Your task to perform on an android device: open app "Microsoft Outlook" (install if not already installed) Image 0: 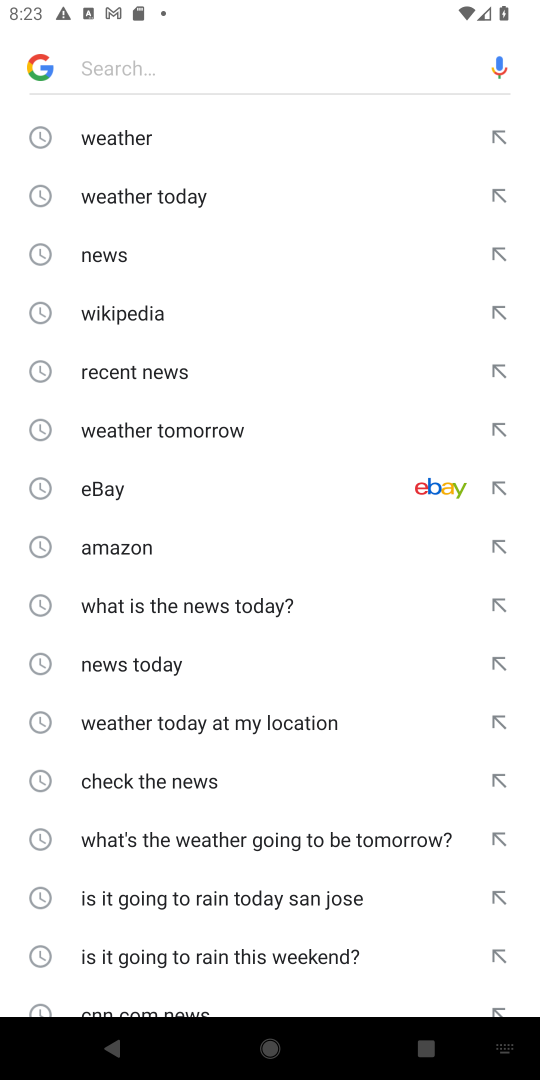
Step 0: press home button
Your task to perform on an android device: open app "Microsoft Outlook" (install if not already installed) Image 1: 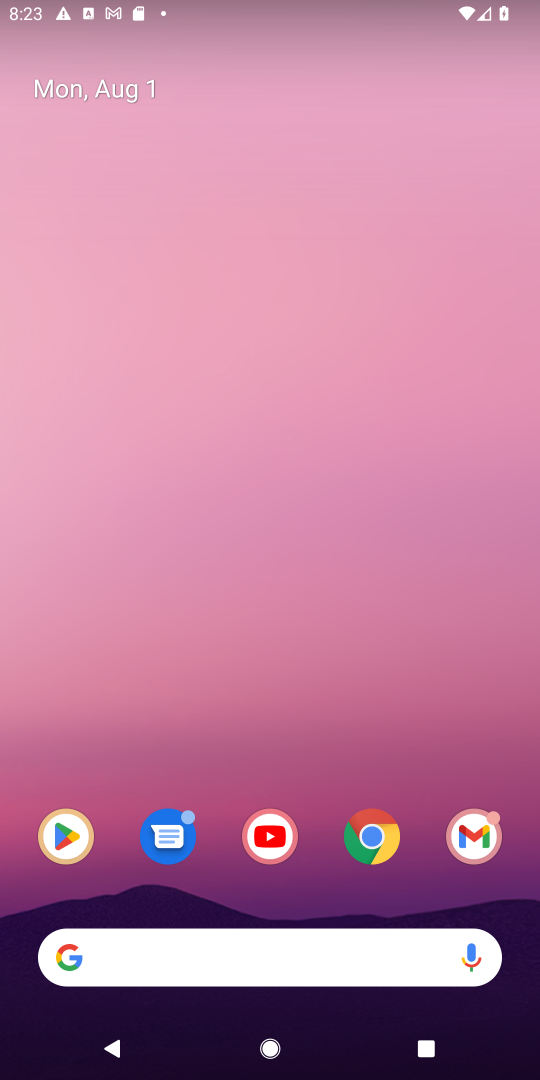
Step 1: click (61, 845)
Your task to perform on an android device: open app "Microsoft Outlook" (install if not already installed) Image 2: 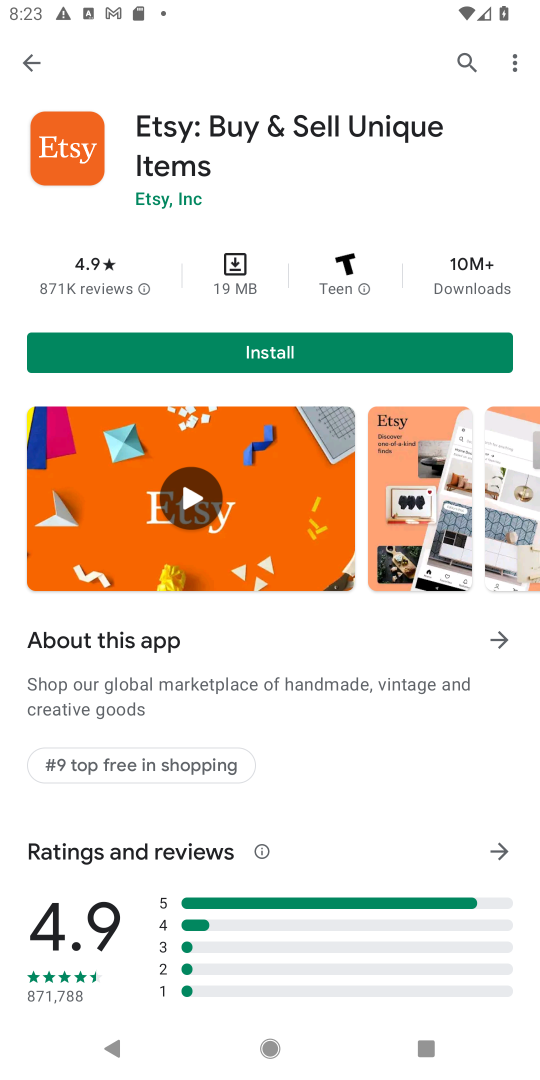
Step 2: click (461, 55)
Your task to perform on an android device: open app "Microsoft Outlook" (install if not already installed) Image 3: 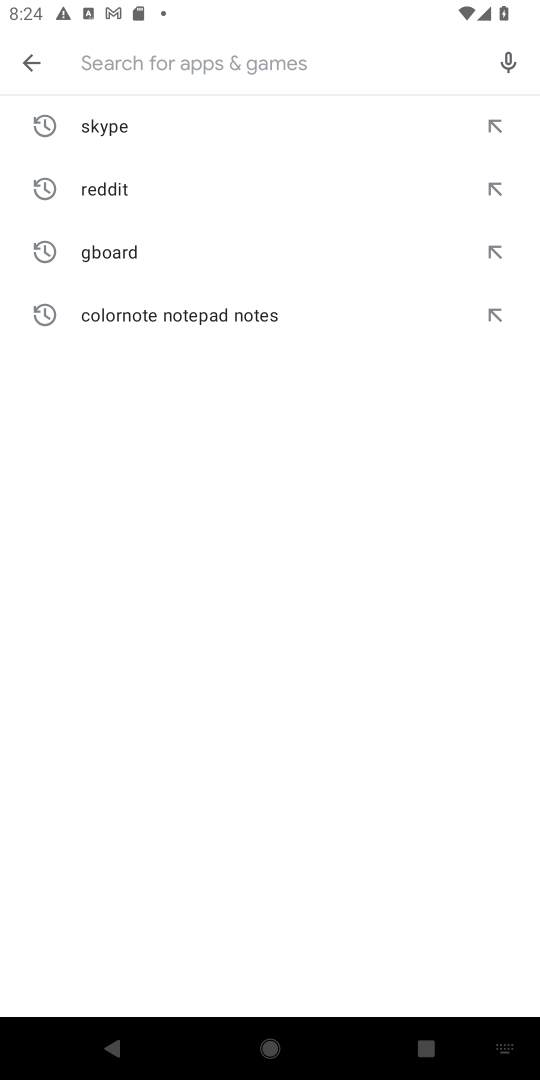
Step 3: type "Microsoft Outlook"
Your task to perform on an android device: open app "Microsoft Outlook" (install if not already installed) Image 4: 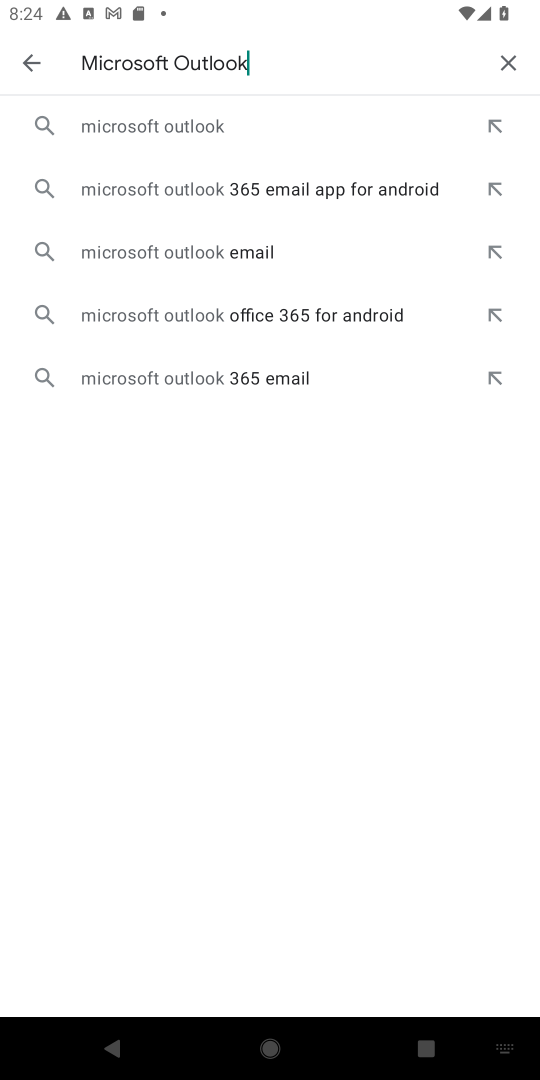
Step 4: click (187, 132)
Your task to perform on an android device: open app "Microsoft Outlook" (install if not already installed) Image 5: 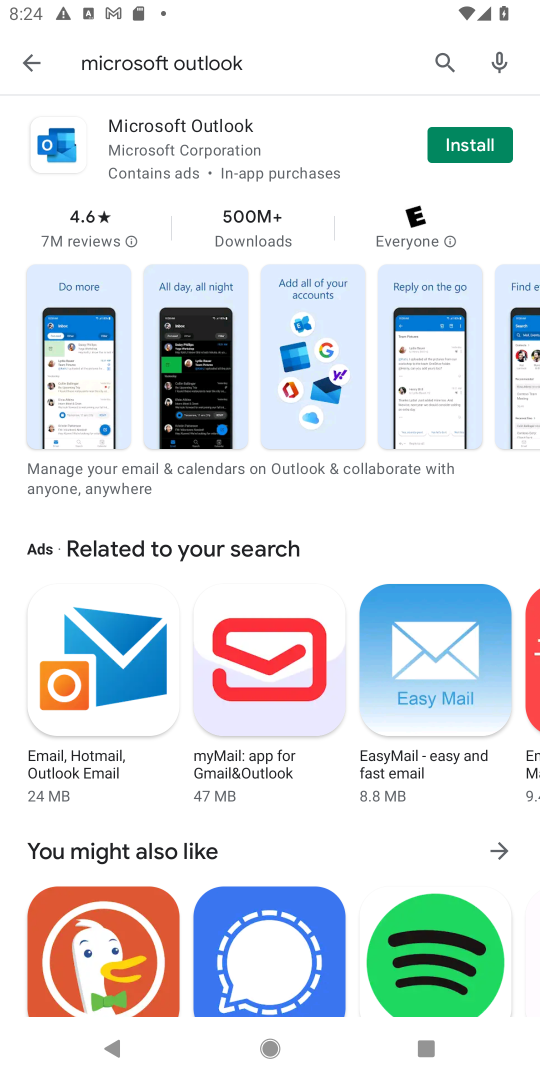
Step 5: click (460, 138)
Your task to perform on an android device: open app "Microsoft Outlook" (install if not already installed) Image 6: 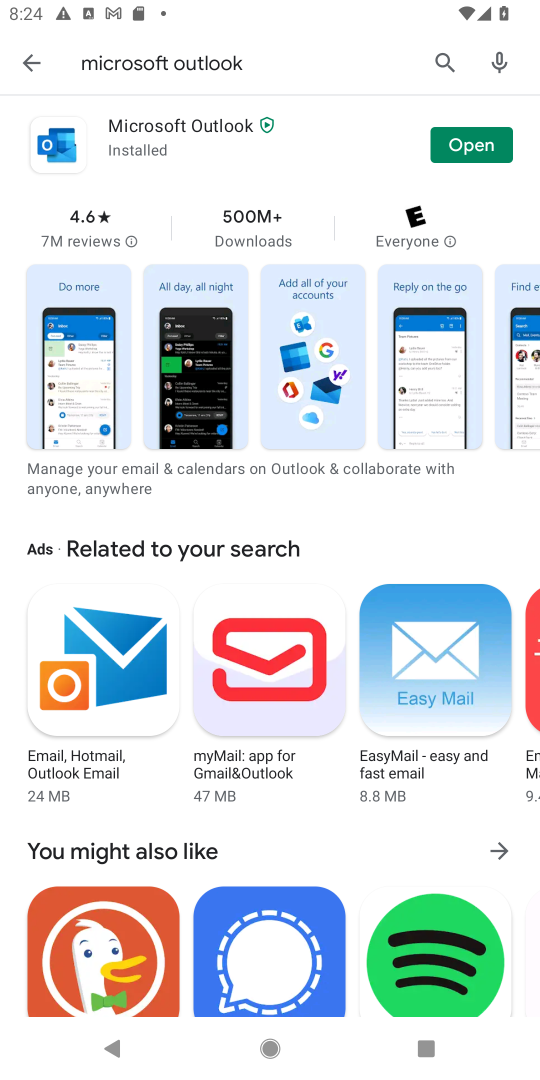
Step 6: click (451, 135)
Your task to perform on an android device: open app "Microsoft Outlook" (install if not already installed) Image 7: 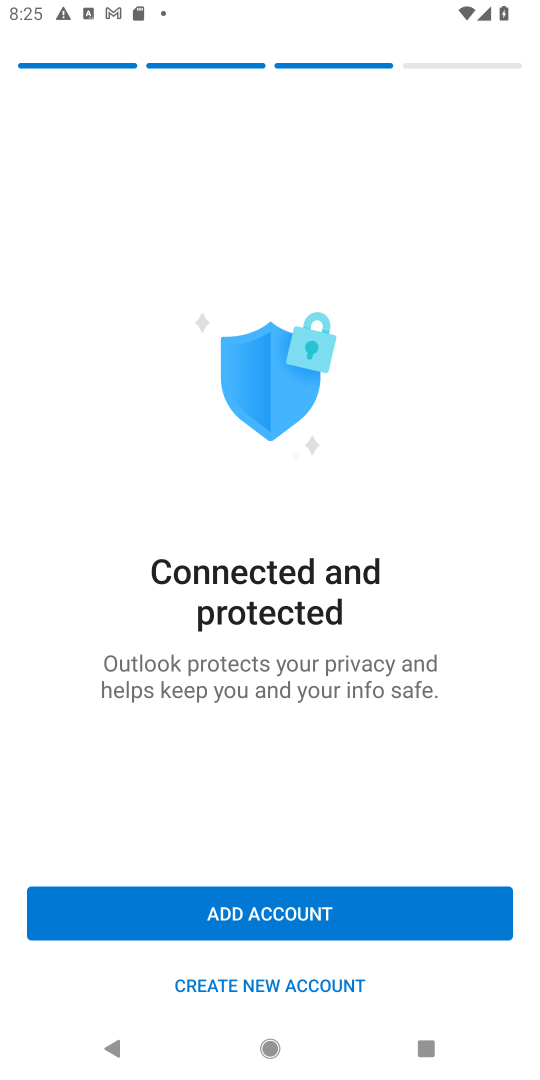
Step 7: task complete